Your task to perform on an android device: delete location history Image 0: 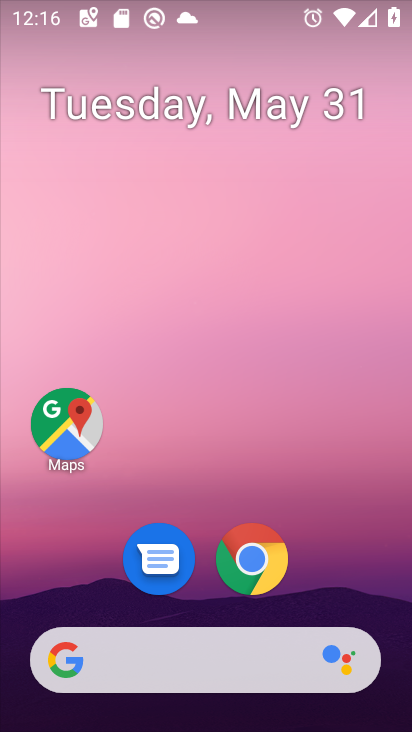
Step 0: click (75, 425)
Your task to perform on an android device: delete location history Image 1: 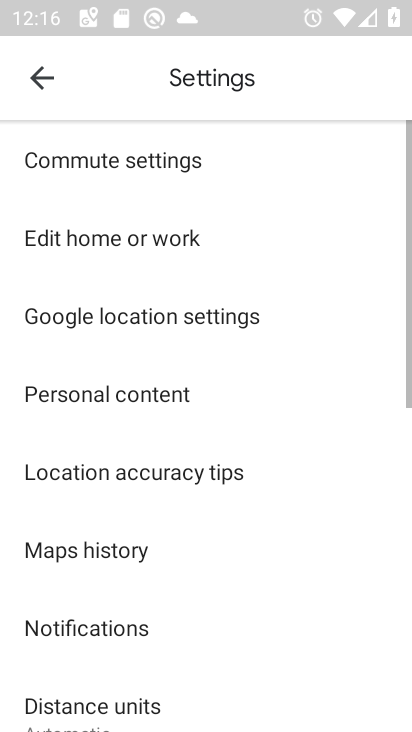
Step 1: click (43, 70)
Your task to perform on an android device: delete location history Image 2: 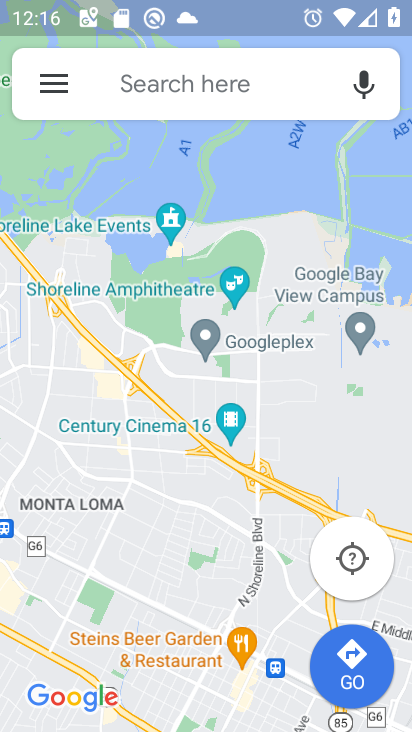
Step 2: click (43, 71)
Your task to perform on an android device: delete location history Image 3: 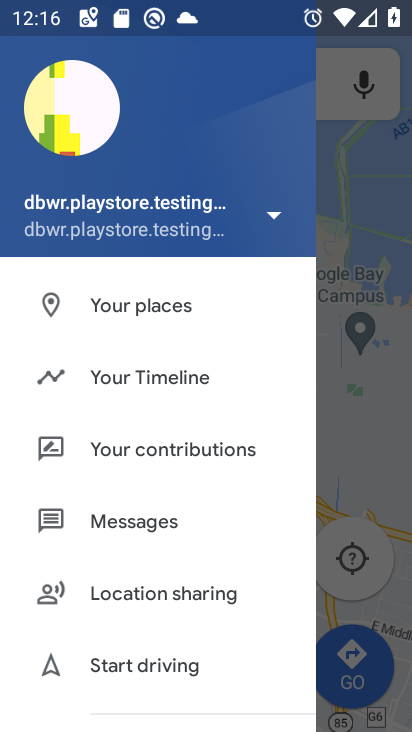
Step 3: drag from (171, 643) to (145, 282)
Your task to perform on an android device: delete location history Image 4: 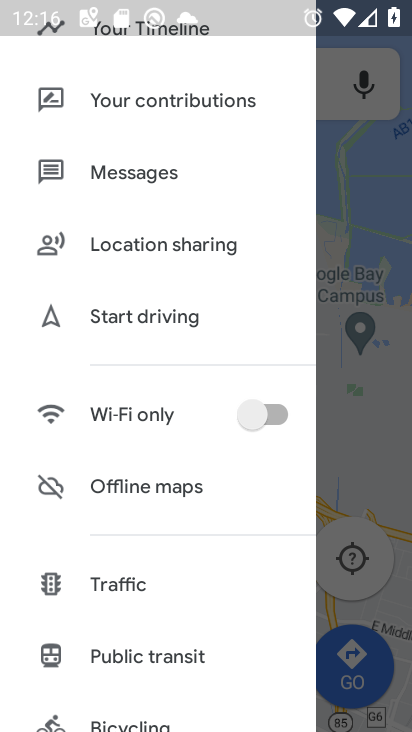
Step 4: drag from (168, 570) to (141, 204)
Your task to perform on an android device: delete location history Image 5: 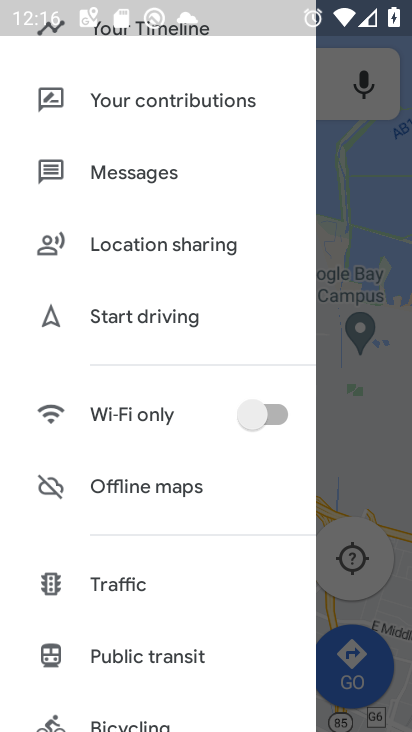
Step 5: drag from (195, 682) to (142, 269)
Your task to perform on an android device: delete location history Image 6: 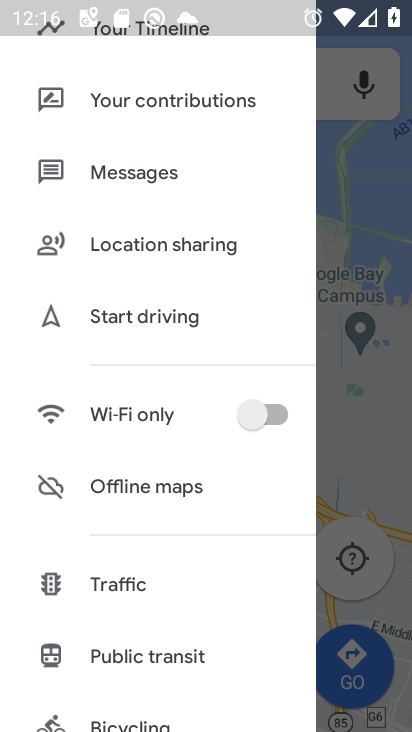
Step 6: drag from (162, 615) to (145, 118)
Your task to perform on an android device: delete location history Image 7: 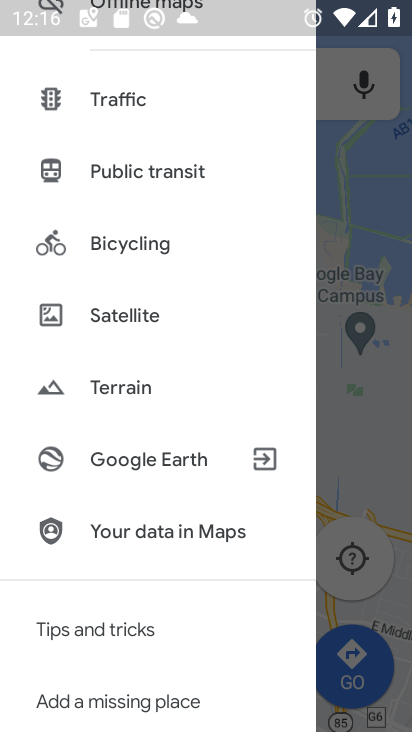
Step 7: drag from (162, 85) to (165, 645)
Your task to perform on an android device: delete location history Image 8: 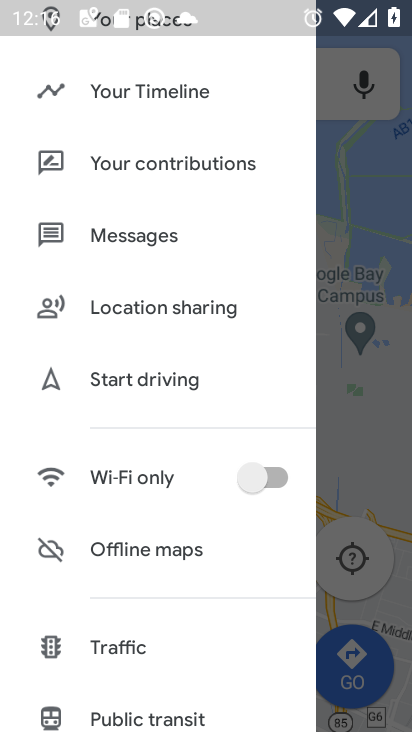
Step 8: click (156, 112)
Your task to perform on an android device: delete location history Image 9: 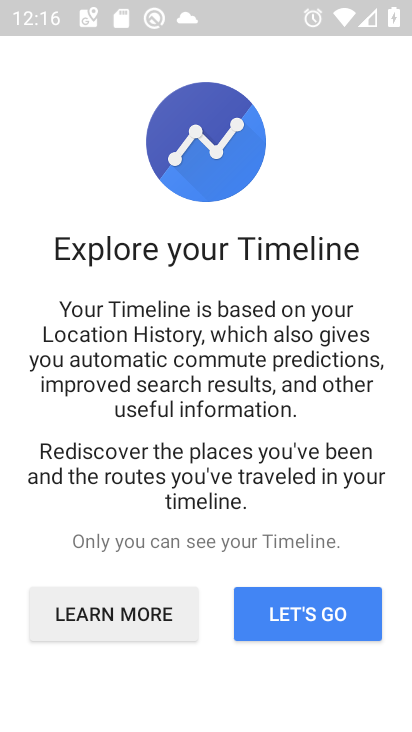
Step 9: click (296, 613)
Your task to perform on an android device: delete location history Image 10: 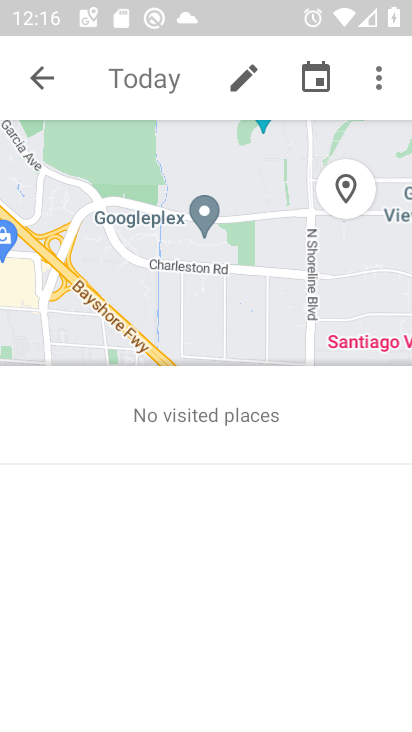
Step 10: click (378, 90)
Your task to perform on an android device: delete location history Image 11: 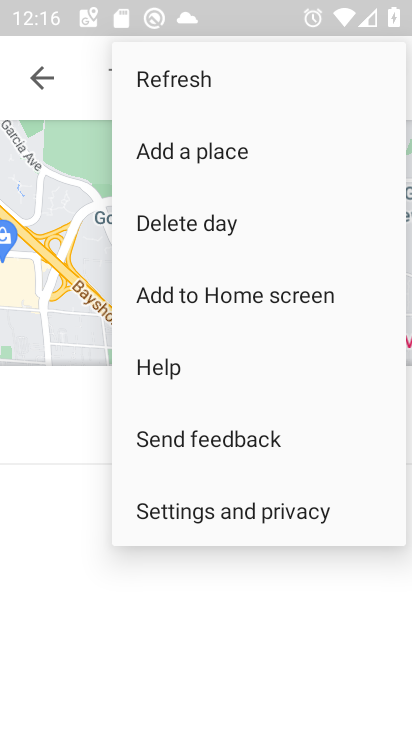
Step 11: click (234, 517)
Your task to perform on an android device: delete location history Image 12: 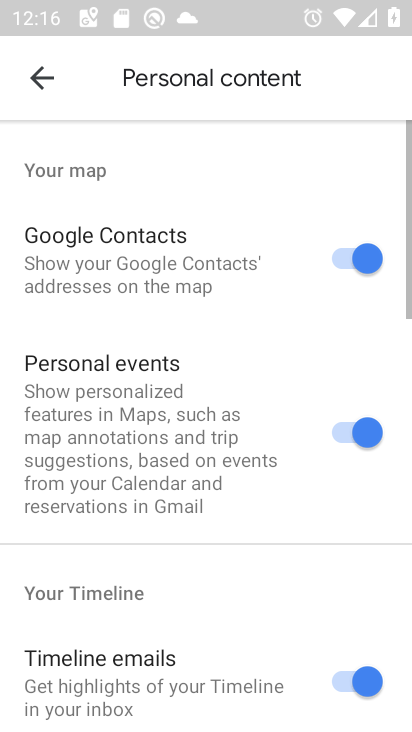
Step 12: drag from (211, 599) to (131, 34)
Your task to perform on an android device: delete location history Image 13: 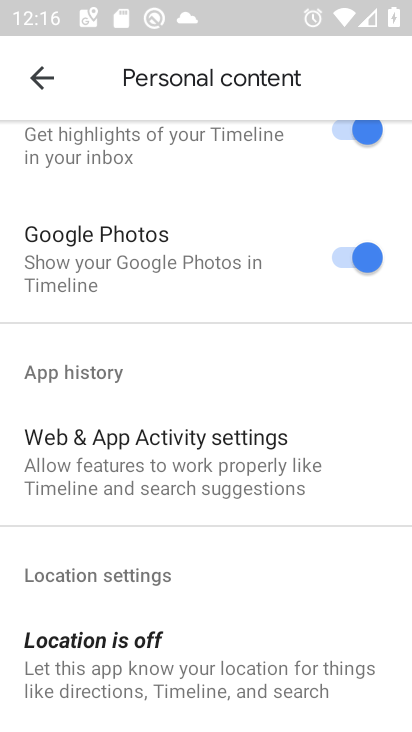
Step 13: drag from (186, 524) to (172, 181)
Your task to perform on an android device: delete location history Image 14: 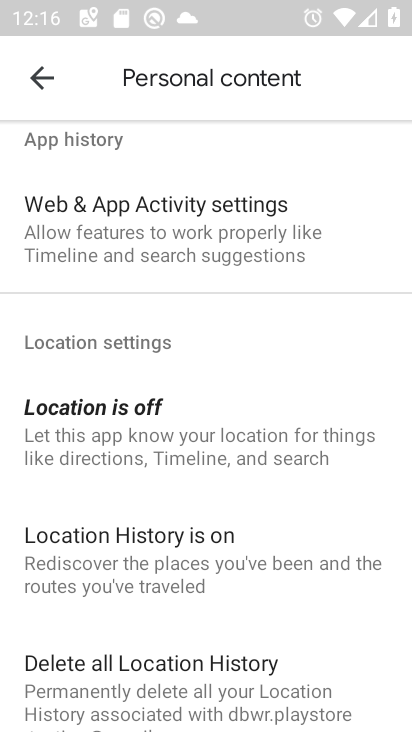
Step 14: click (229, 676)
Your task to perform on an android device: delete location history Image 15: 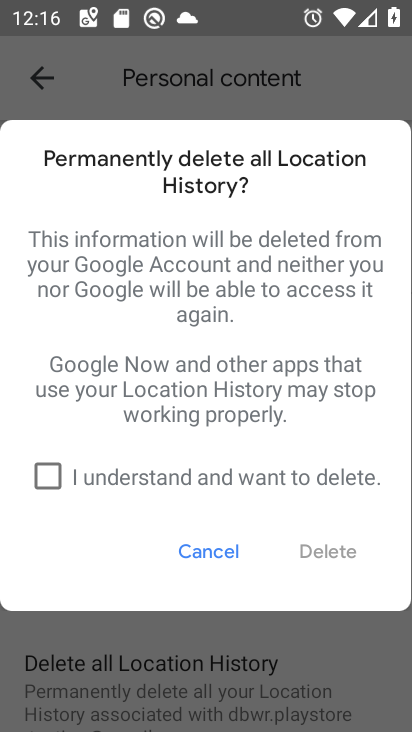
Step 15: click (140, 472)
Your task to perform on an android device: delete location history Image 16: 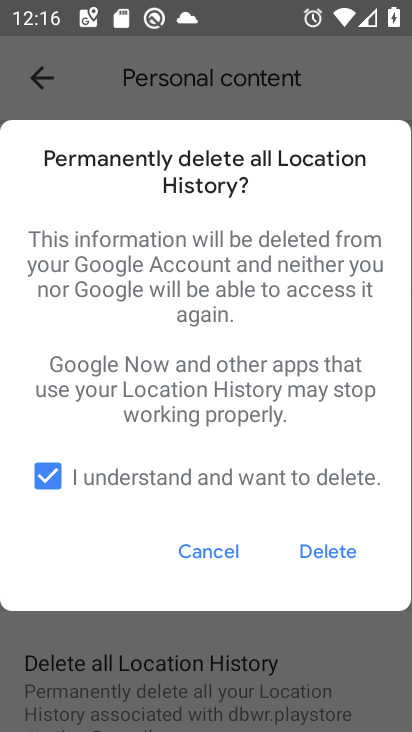
Step 16: click (345, 556)
Your task to perform on an android device: delete location history Image 17: 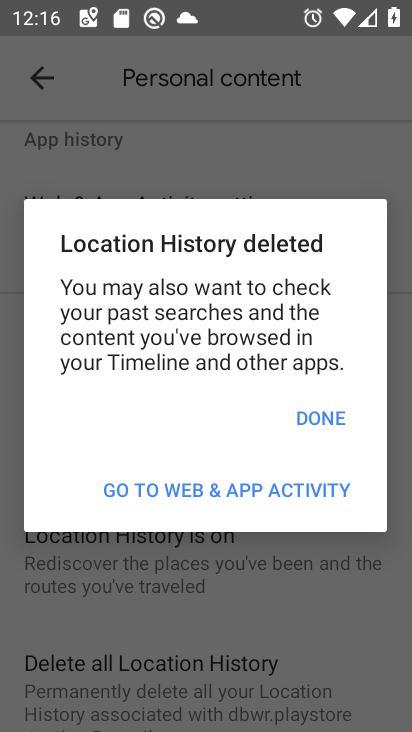
Step 17: click (318, 404)
Your task to perform on an android device: delete location history Image 18: 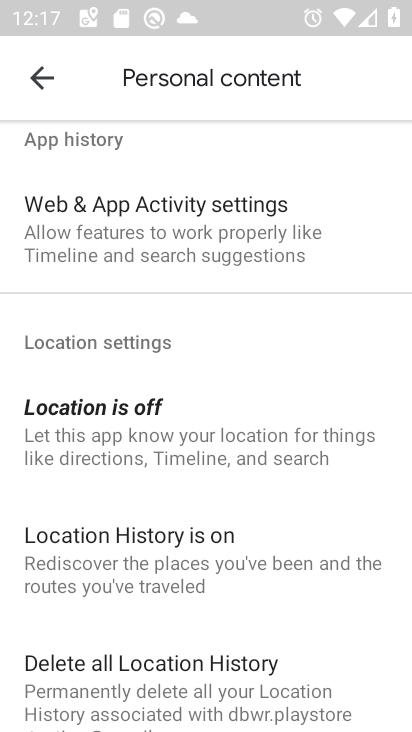
Step 18: task complete